Your task to perform on an android device: search for starred emails in the gmail app Image 0: 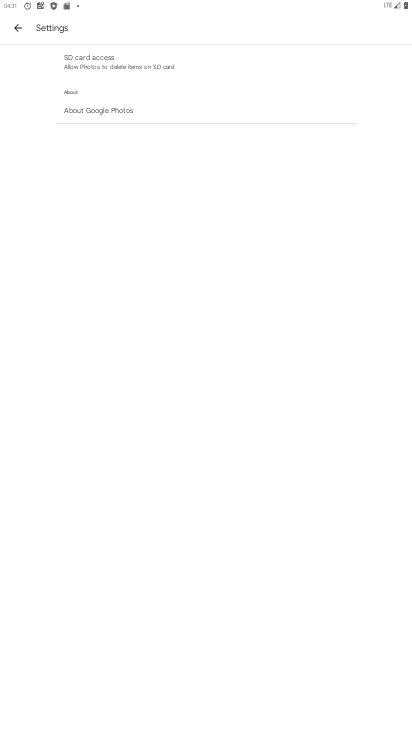
Step 0: press home button
Your task to perform on an android device: search for starred emails in the gmail app Image 1: 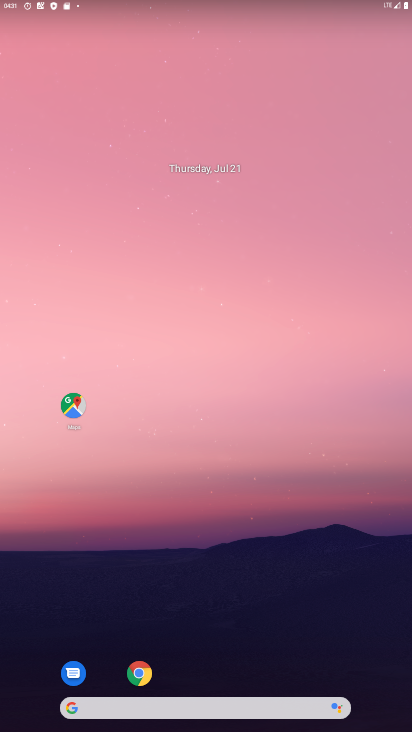
Step 1: drag from (264, 634) to (269, 53)
Your task to perform on an android device: search for starred emails in the gmail app Image 2: 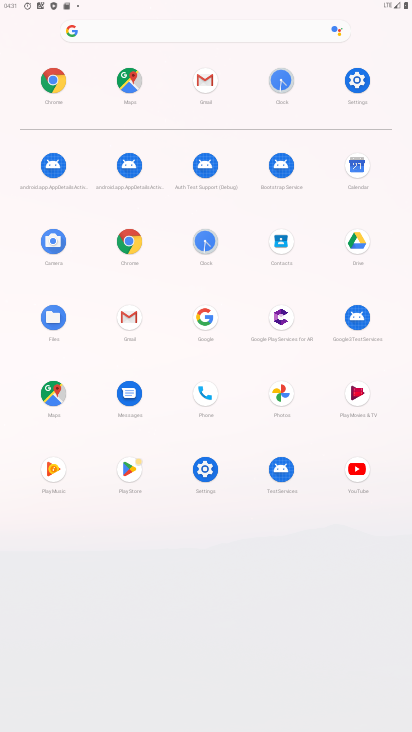
Step 2: click (210, 76)
Your task to perform on an android device: search for starred emails in the gmail app Image 3: 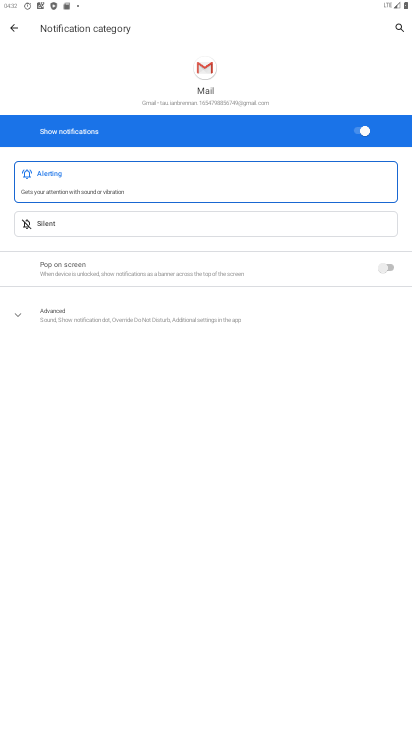
Step 3: click (19, 29)
Your task to perform on an android device: search for starred emails in the gmail app Image 4: 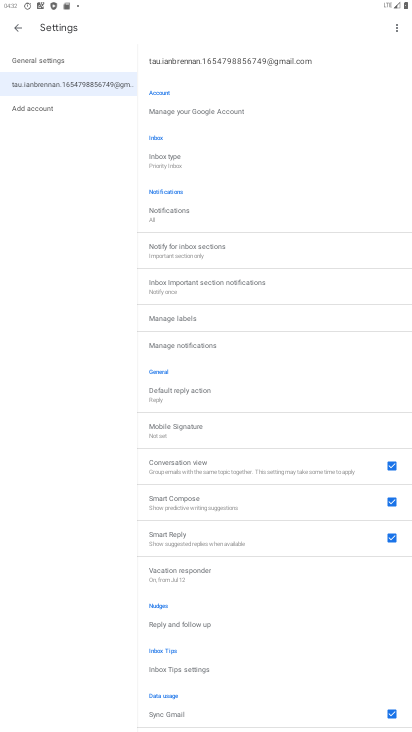
Step 4: click (26, 20)
Your task to perform on an android device: search for starred emails in the gmail app Image 5: 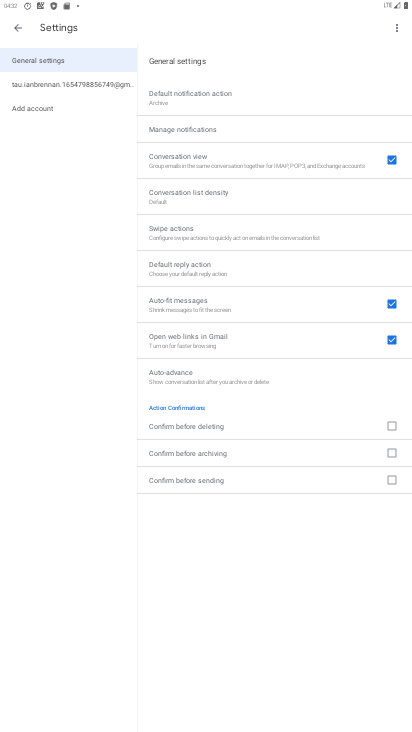
Step 5: click (26, 20)
Your task to perform on an android device: search for starred emails in the gmail app Image 6: 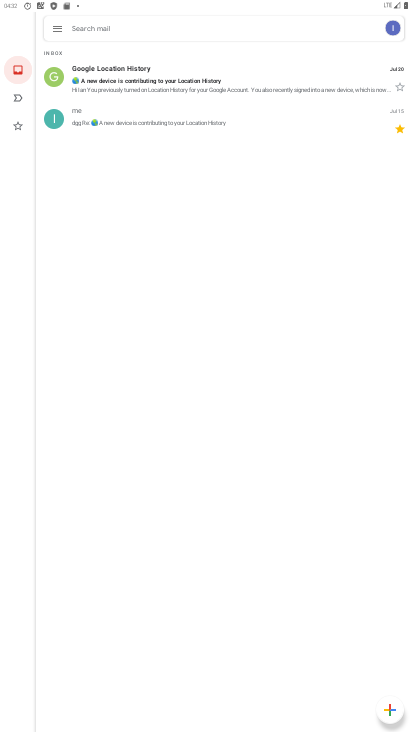
Step 6: click (53, 31)
Your task to perform on an android device: search for starred emails in the gmail app Image 7: 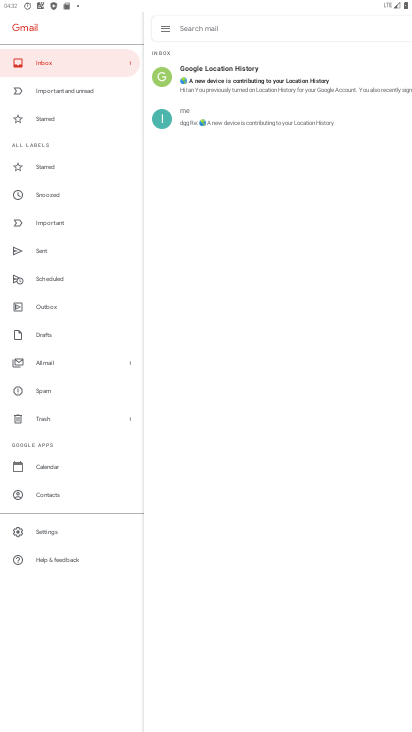
Step 7: click (50, 168)
Your task to perform on an android device: search for starred emails in the gmail app Image 8: 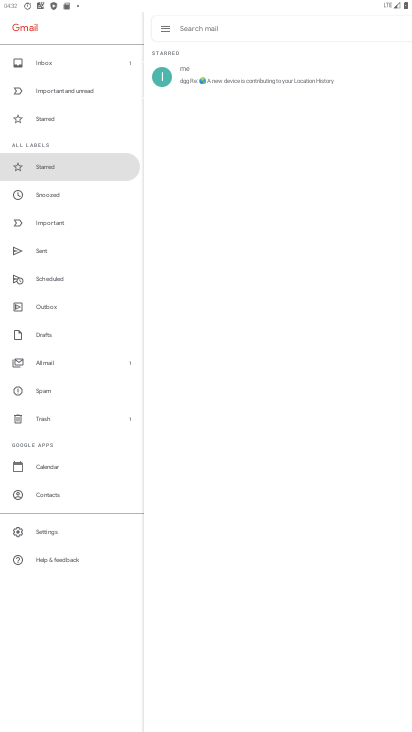
Step 8: task complete